Your task to perform on an android device: Go to Google maps Image 0: 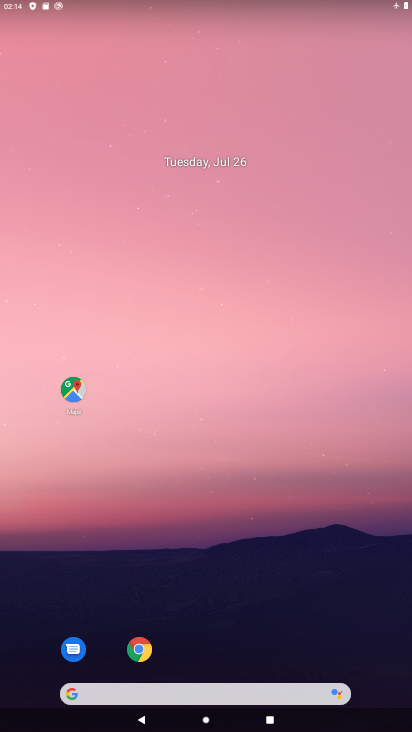
Step 0: click (71, 389)
Your task to perform on an android device: Go to Google maps Image 1: 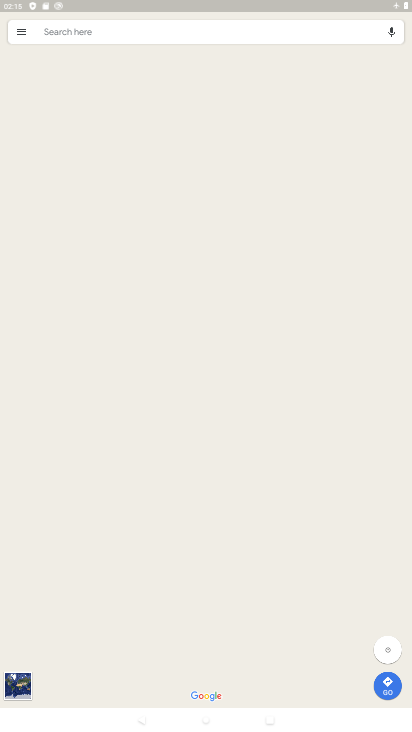
Step 1: task complete